Your task to perform on an android device: open app "Google Duo" (install if not already installed) Image 0: 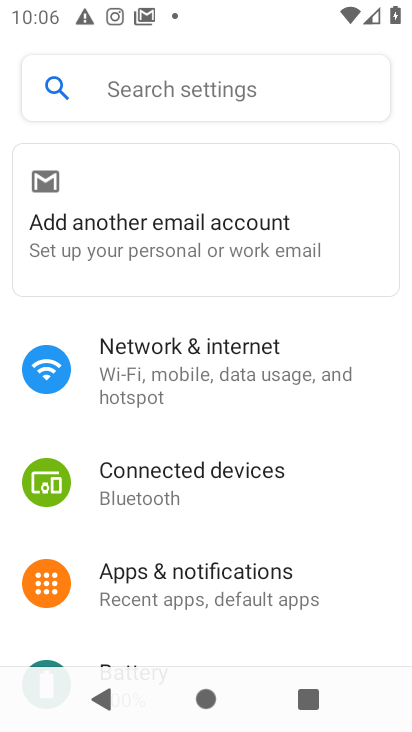
Step 0: press home button
Your task to perform on an android device: open app "Google Duo" (install if not already installed) Image 1: 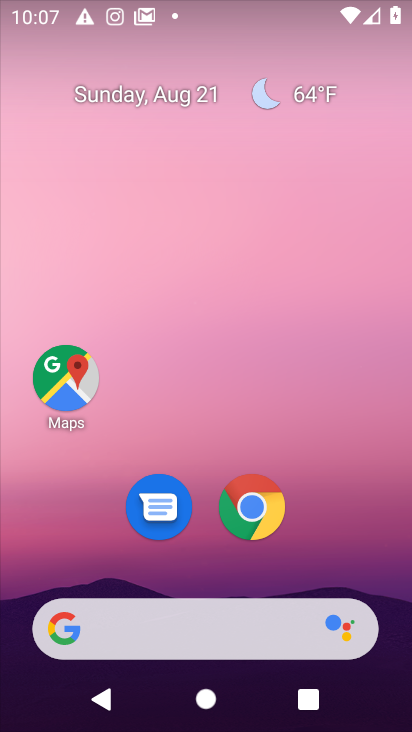
Step 1: drag from (205, 391) to (226, 18)
Your task to perform on an android device: open app "Google Duo" (install if not already installed) Image 2: 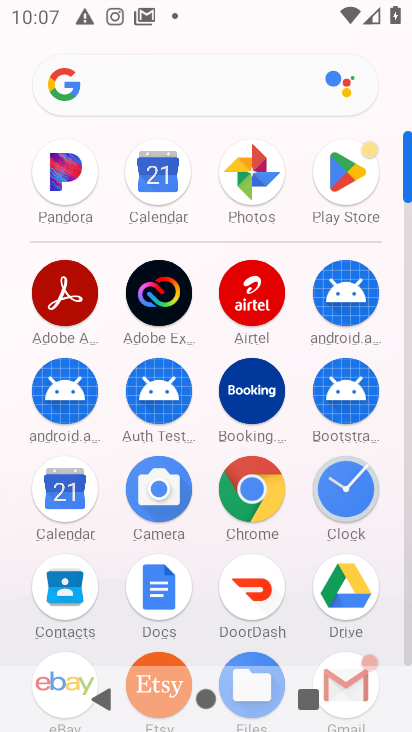
Step 2: click (337, 183)
Your task to perform on an android device: open app "Google Duo" (install if not already installed) Image 3: 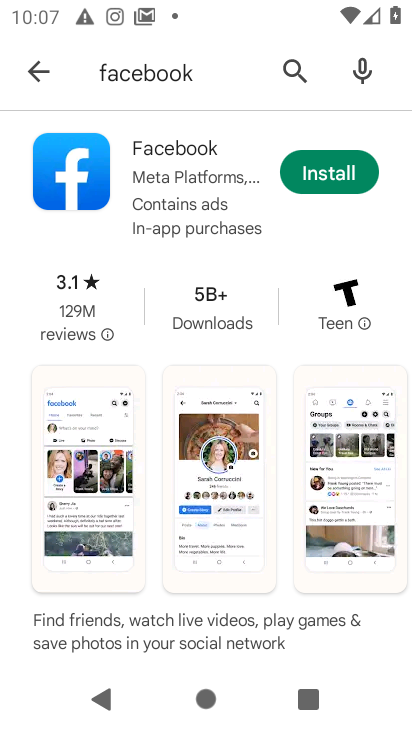
Step 3: click (38, 69)
Your task to perform on an android device: open app "Google Duo" (install if not already installed) Image 4: 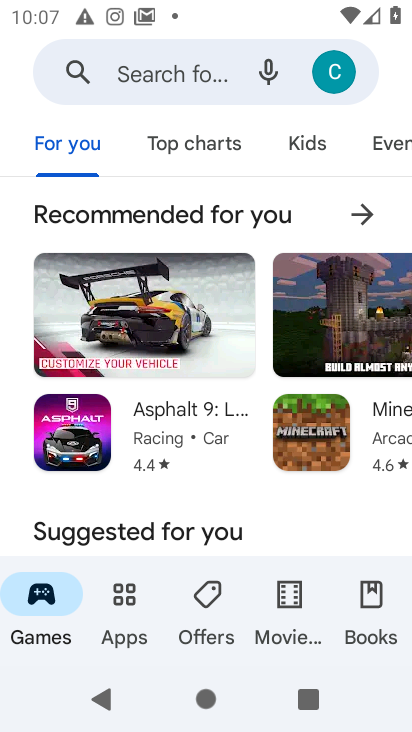
Step 4: click (126, 71)
Your task to perform on an android device: open app "Google Duo" (install if not already installed) Image 5: 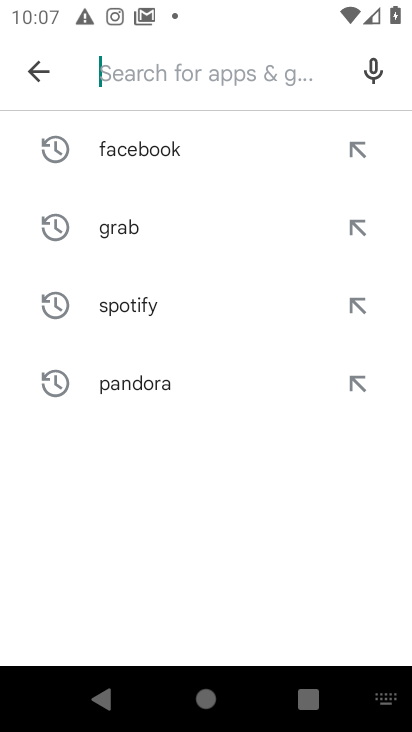
Step 5: type "Google Duo"
Your task to perform on an android device: open app "Google Duo" (install if not already installed) Image 6: 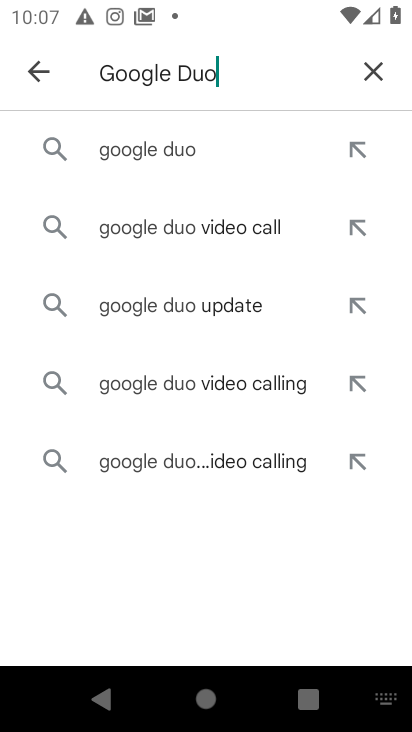
Step 6: click (164, 158)
Your task to perform on an android device: open app "Google Duo" (install if not already installed) Image 7: 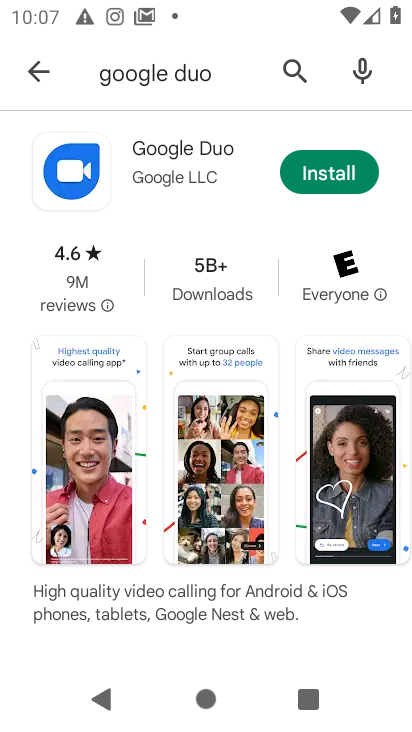
Step 7: click (315, 173)
Your task to perform on an android device: open app "Google Duo" (install if not already installed) Image 8: 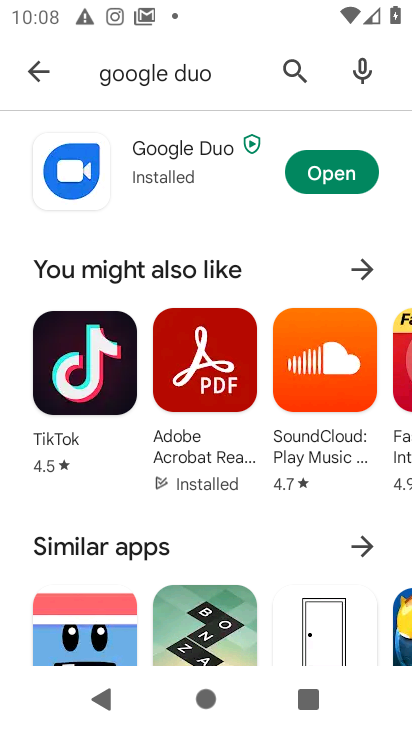
Step 8: click (320, 174)
Your task to perform on an android device: open app "Google Duo" (install if not already installed) Image 9: 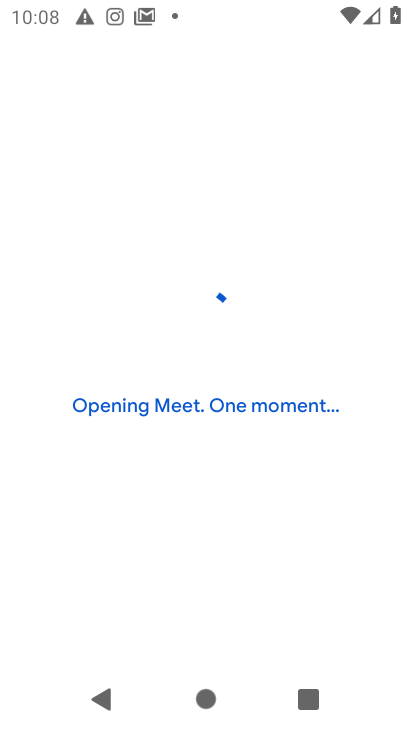
Step 9: task complete